Your task to perform on an android device: visit the assistant section in the google photos Image 0: 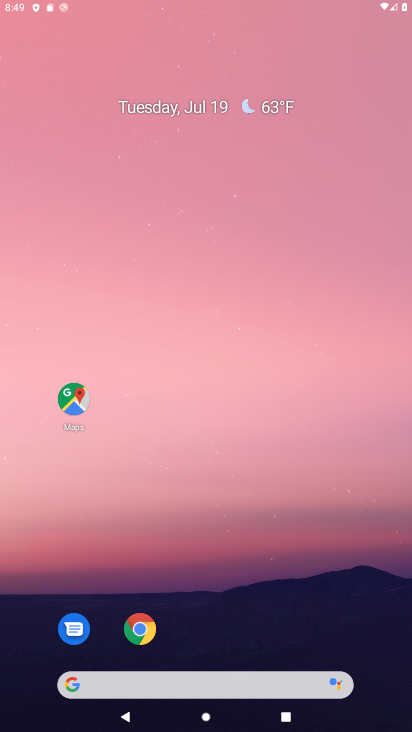
Step 0: press home button
Your task to perform on an android device: visit the assistant section in the google photos Image 1: 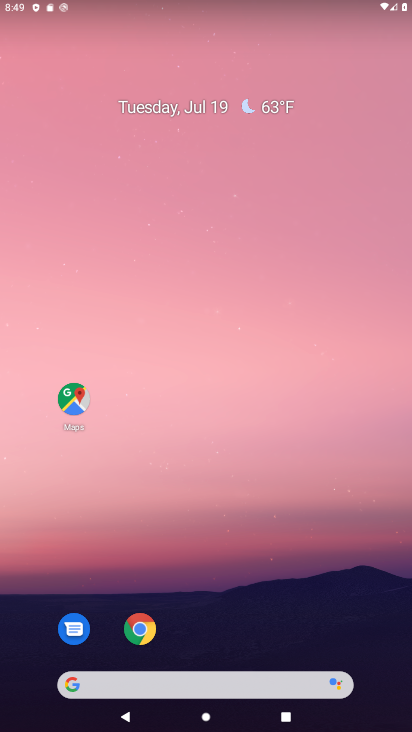
Step 1: drag from (208, 651) to (237, 4)
Your task to perform on an android device: visit the assistant section in the google photos Image 2: 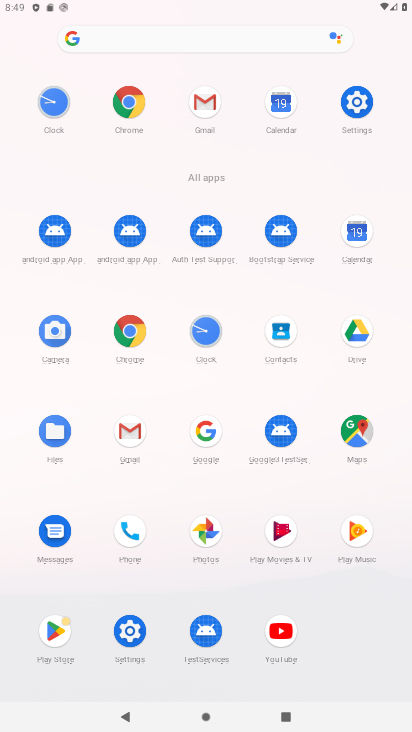
Step 2: click (206, 523)
Your task to perform on an android device: visit the assistant section in the google photos Image 3: 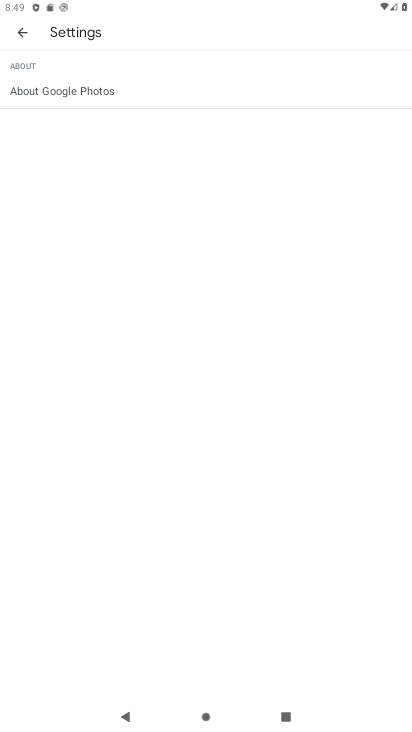
Step 3: click (23, 33)
Your task to perform on an android device: visit the assistant section in the google photos Image 4: 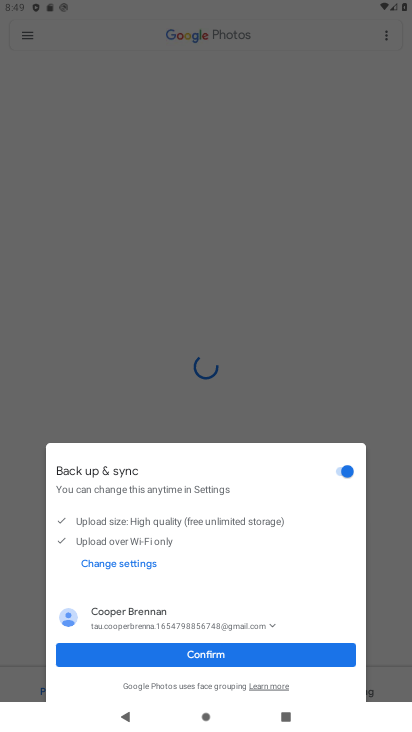
Step 4: click (274, 362)
Your task to perform on an android device: visit the assistant section in the google photos Image 5: 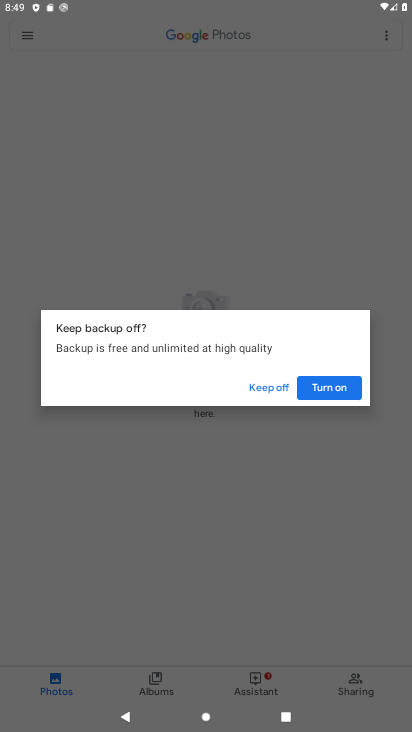
Step 5: click (260, 389)
Your task to perform on an android device: visit the assistant section in the google photos Image 6: 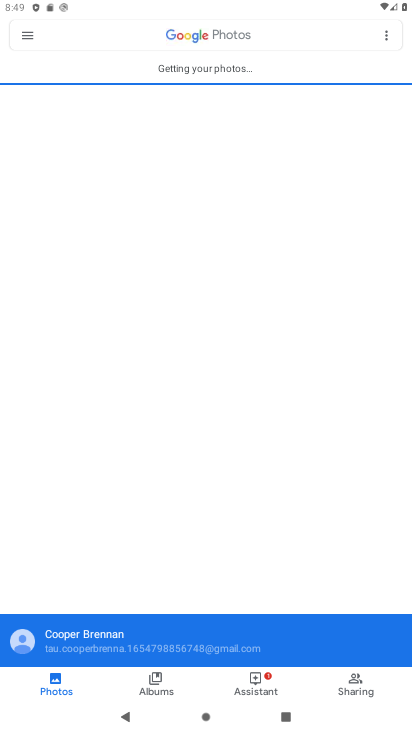
Step 6: click (258, 676)
Your task to perform on an android device: visit the assistant section in the google photos Image 7: 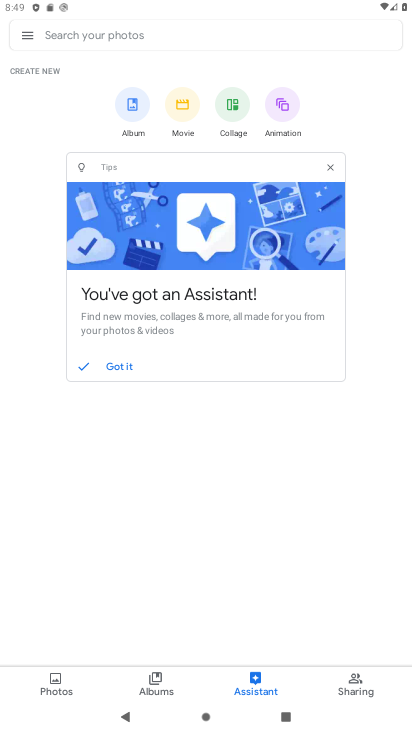
Step 7: task complete